Your task to perform on an android device: Search for pizza restaurants on Maps Image 0: 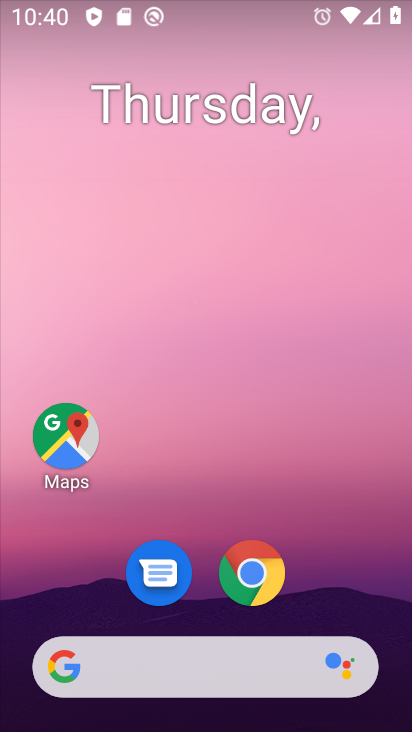
Step 0: click (81, 439)
Your task to perform on an android device: Search for pizza restaurants on Maps Image 1: 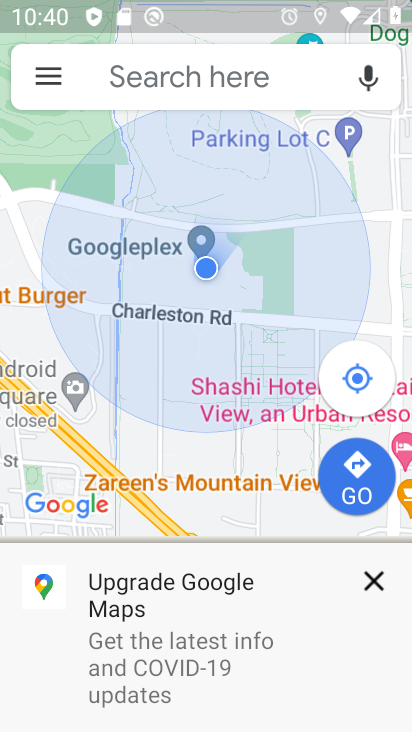
Step 1: click (210, 62)
Your task to perform on an android device: Search for pizza restaurants on Maps Image 2: 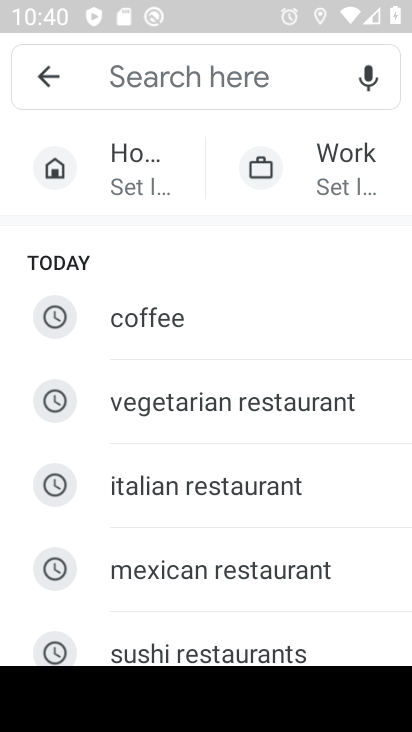
Step 2: type "pizza restaurants"
Your task to perform on an android device: Search for pizza restaurants on Maps Image 3: 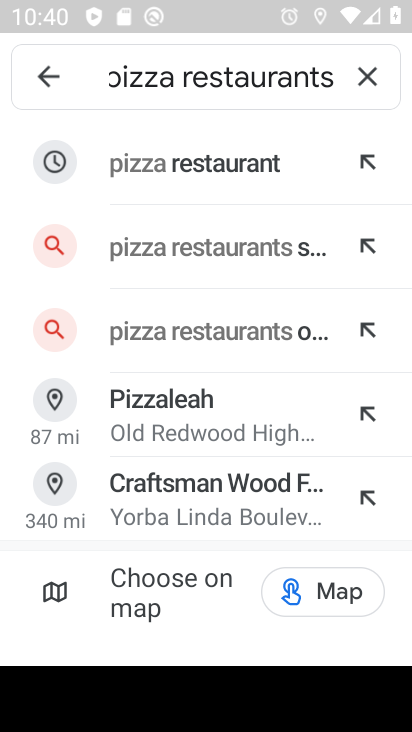
Step 3: press enter
Your task to perform on an android device: Search for pizza restaurants on Maps Image 4: 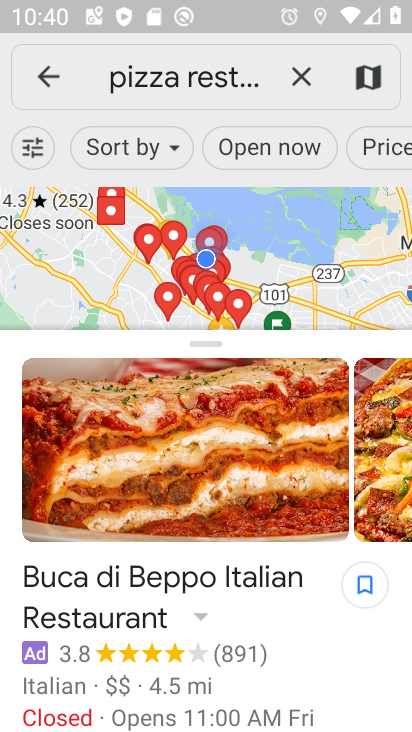
Step 4: task complete